Your task to perform on an android device: Open calendar and show me the fourth week of next month Image 0: 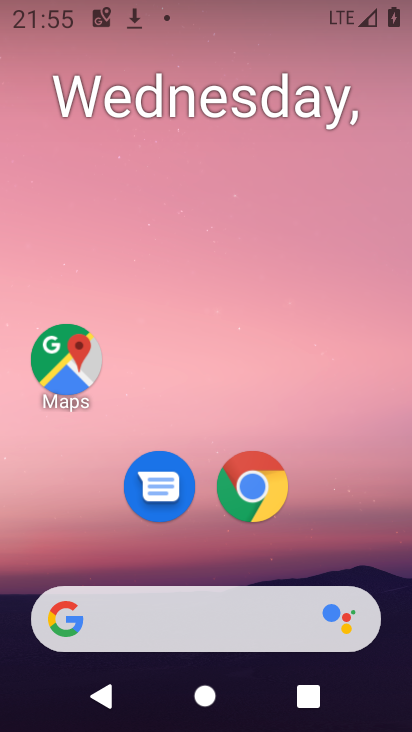
Step 0: drag from (197, 483) to (220, 10)
Your task to perform on an android device: Open calendar and show me the fourth week of next month Image 1: 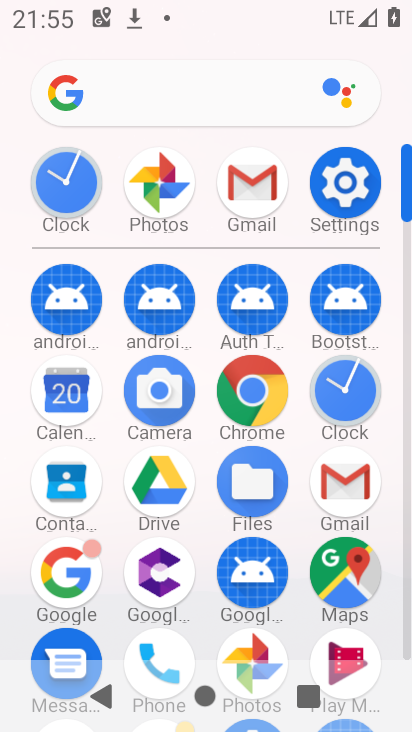
Step 1: click (66, 395)
Your task to perform on an android device: Open calendar and show me the fourth week of next month Image 2: 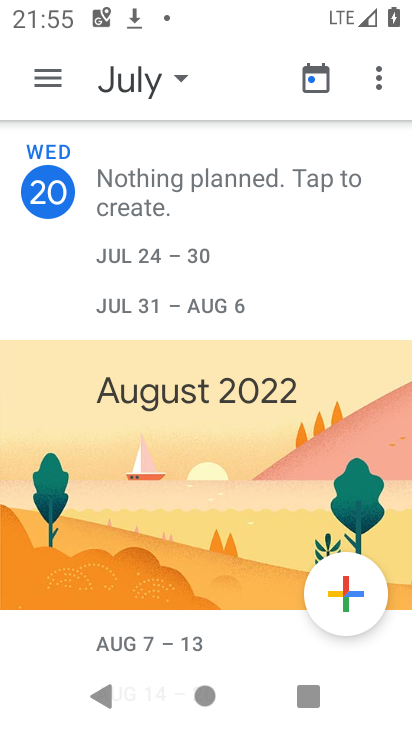
Step 2: click (166, 81)
Your task to perform on an android device: Open calendar and show me the fourth week of next month Image 3: 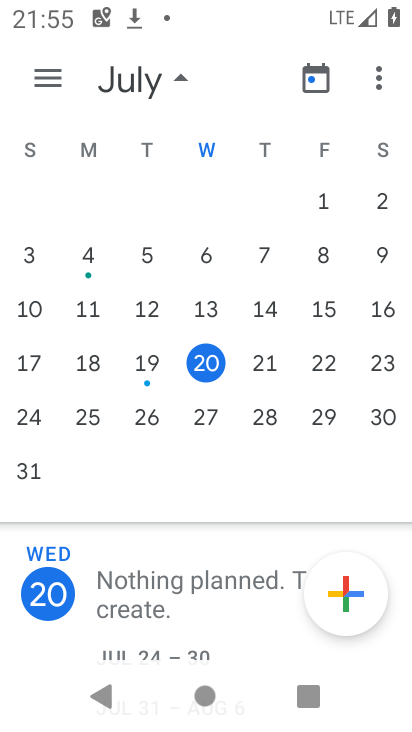
Step 3: drag from (343, 320) to (9, 318)
Your task to perform on an android device: Open calendar and show me the fourth week of next month Image 4: 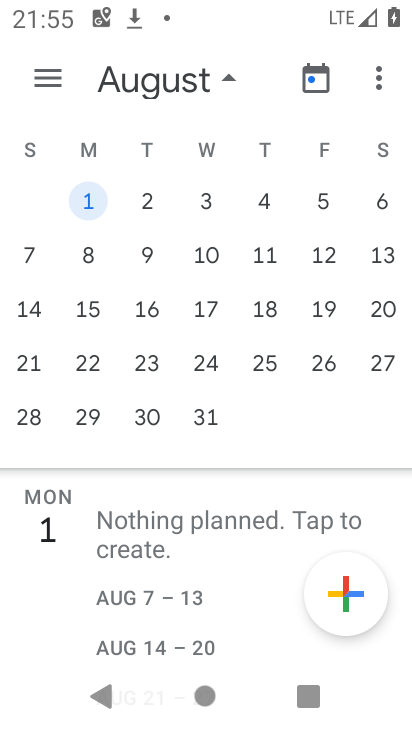
Step 4: click (82, 356)
Your task to perform on an android device: Open calendar and show me the fourth week of next month Image 5: 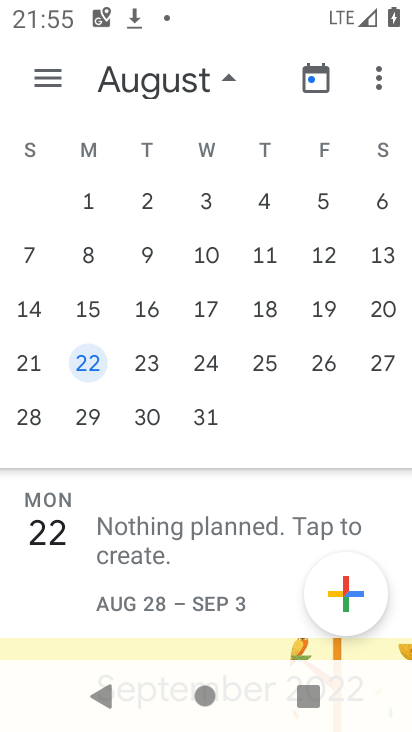
Step 5: task complete